Your task to perform on an android device: turn on data saver in the chrome app Image 0: 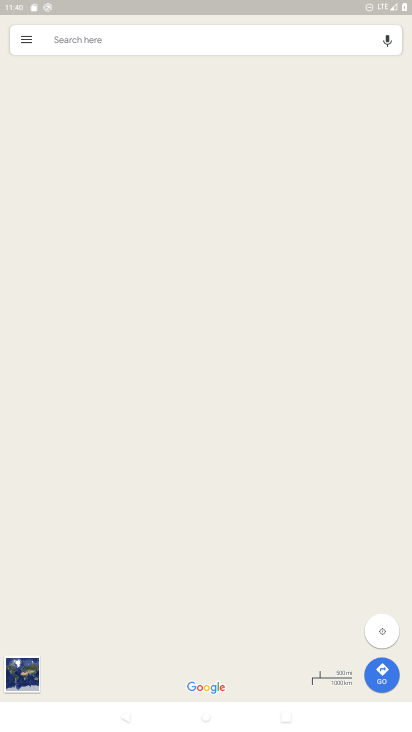
Step 0: press home button
Your task to perform on an android device: turn on data saver in the chrome app Image 1: 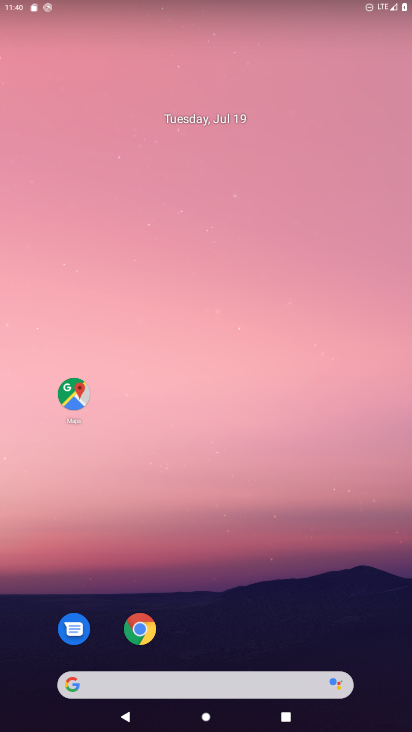
Step 1: click (146, 630)
Your task to perform on an android device: turn on data saver in the chrome app Image 2: 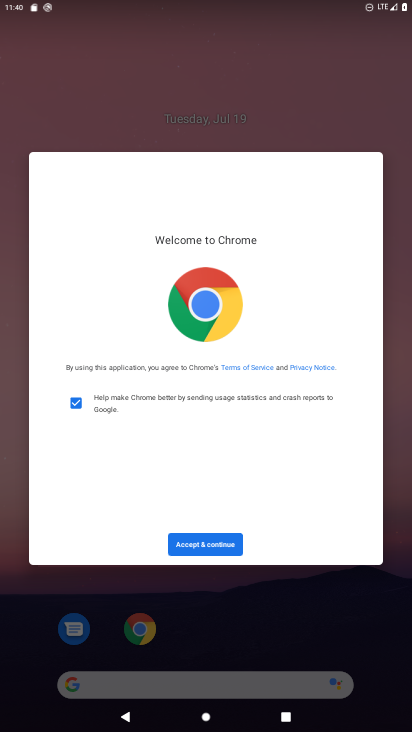
Step 2: click (187, 546)
Your task to perform on an android device: turn on data saver in the chrome app Image 3: 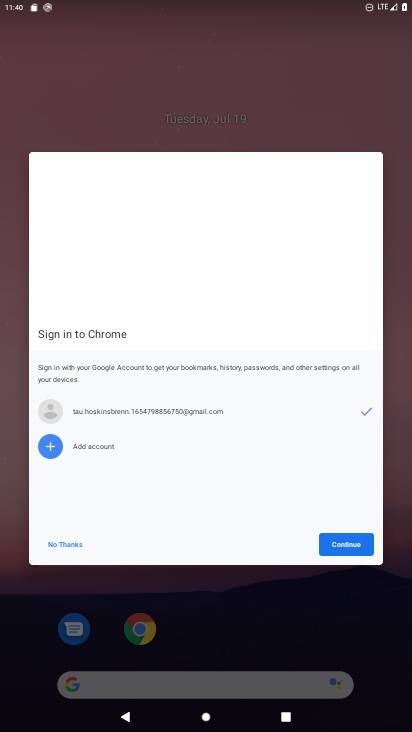
Step 3: click (342, 548)
Your task to perform on an android device: turn on data saver in the chrome app Image 4: 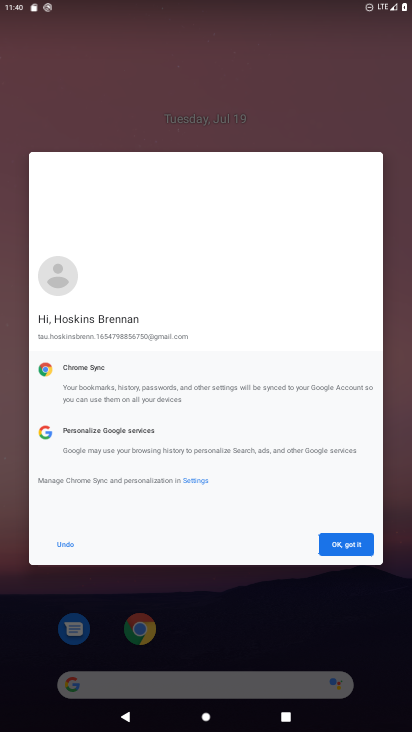
Step 4: click (342, 548)
Your task to perform on an android device: turn on data saver in the chrome app Image 5: 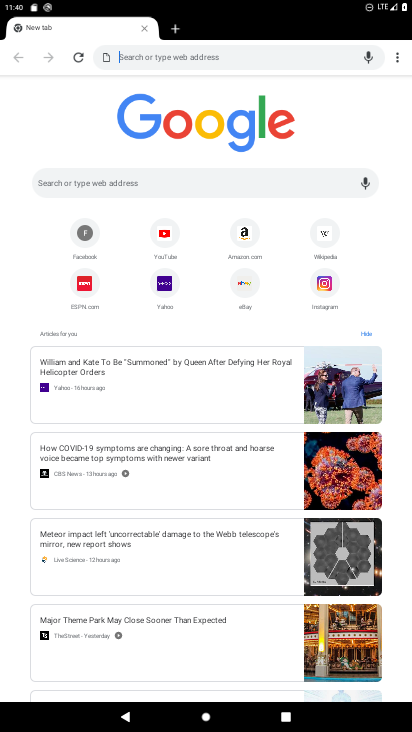
Step 5: click (397, 55)
Your task to perform on an android device: turn on data saver in the chrome app Image 6: 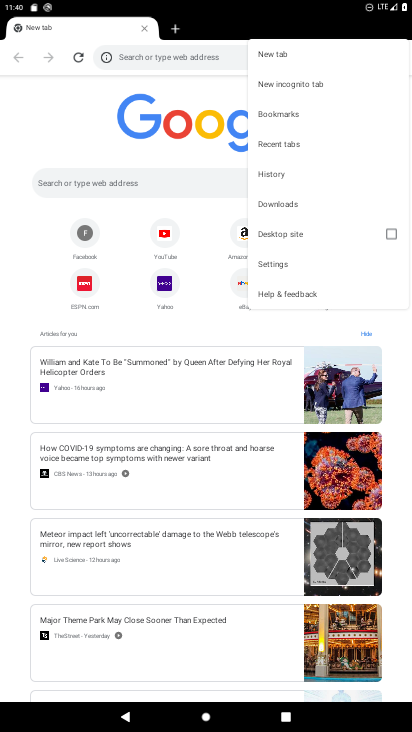
Step 6: click (273, 265)
Your task to perform on an android device: turn on data saver in the chrome app Image 7: 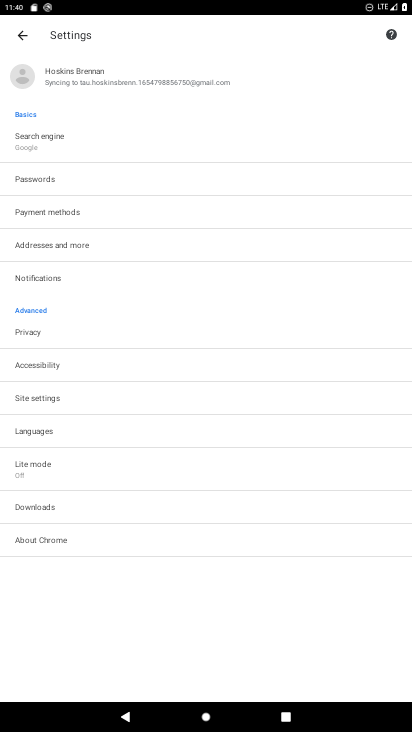
Step 7: click (37, 468)
Your task to perform on an android device: turn on data saver in the chrome app Image 8: 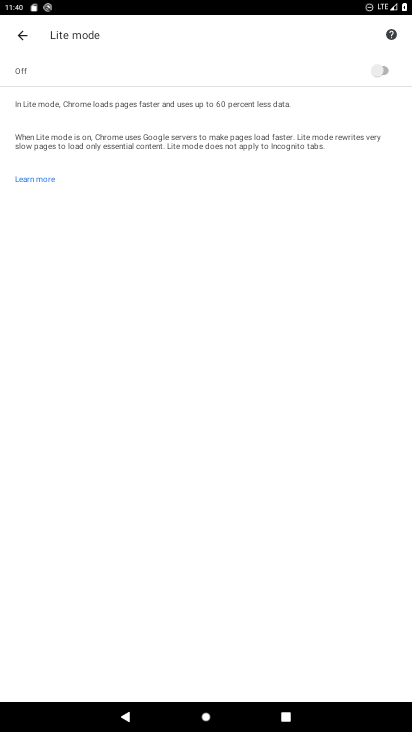
Step 8: click (385, 70)
Your task to perform on an android device: turn on data saver in the chrome app Image 9: 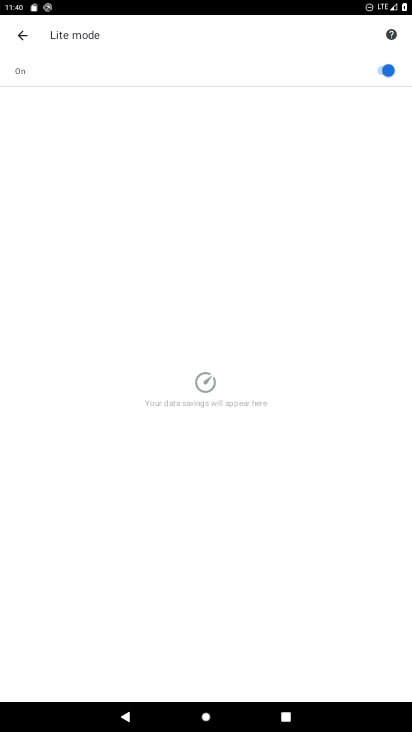
Step 9: task complete